Your task to perform on an android device: toggle translation in the chrome app Image 0: 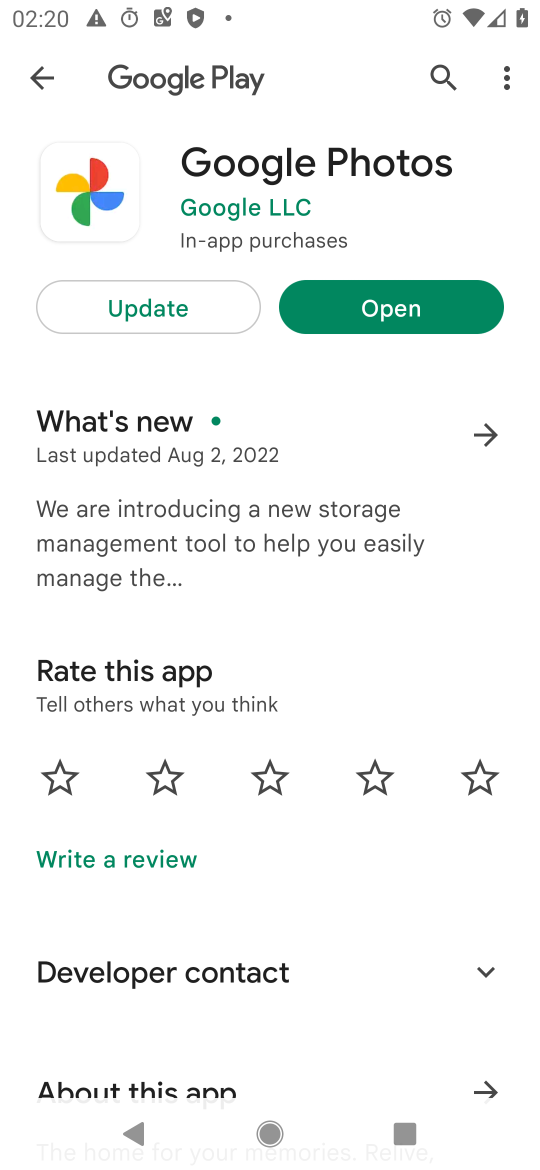
Step 0: press home button
Your task to perform on an android device: toggle translation in the chrome app Image 1: 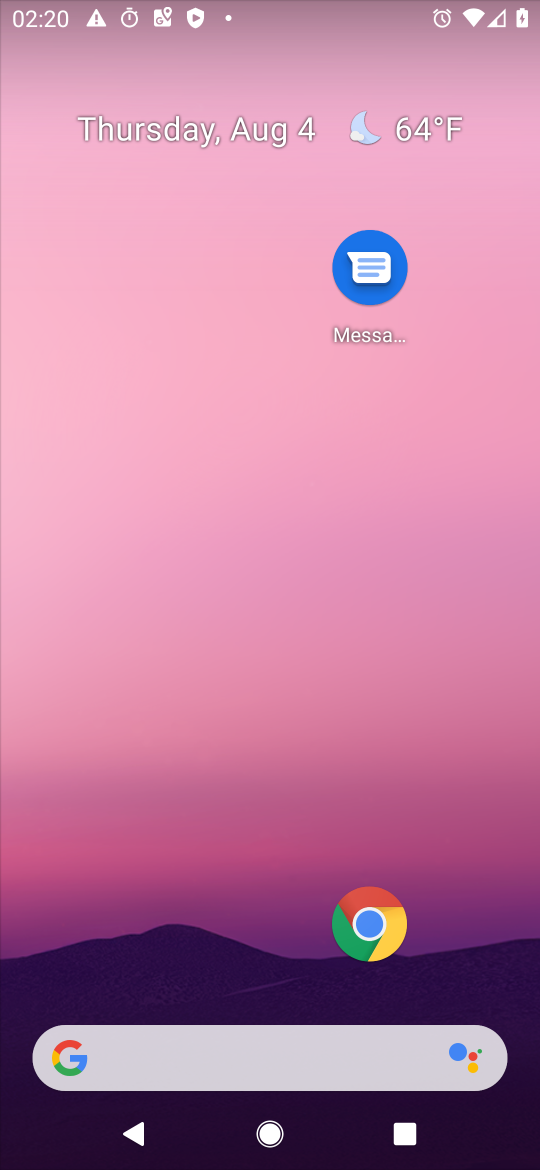
Step 1: click (371, 907)
Your task to perform on an android device: toggle translation in the chrome app Image 2: 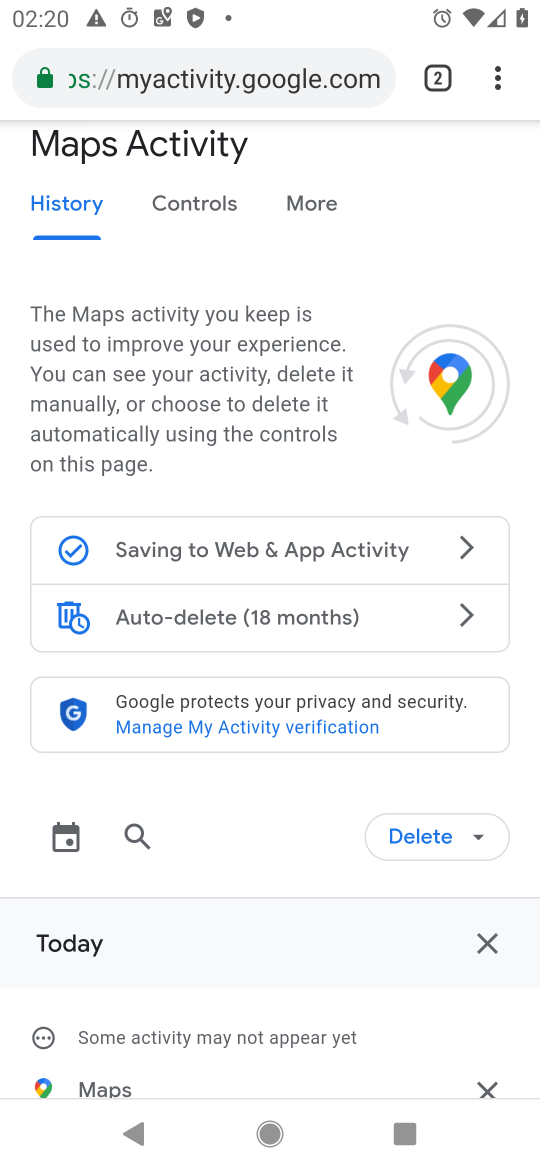
Step 2: click (502, 64)
Your task to perform on an android device: toggle translation in the chrome app Image 3: 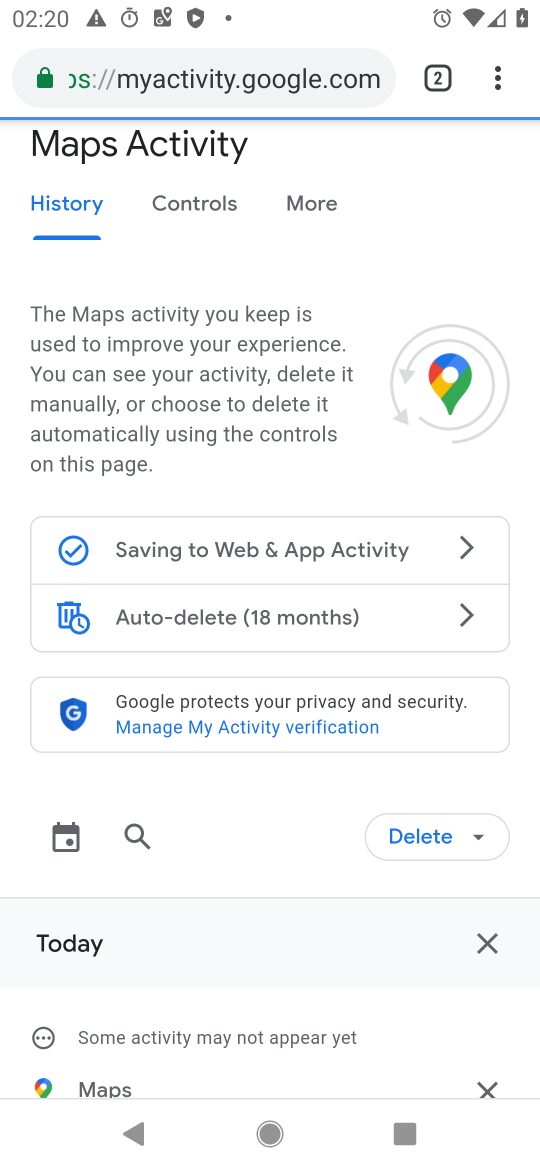
Step 3: click (508, 79)
Your task to perform on an android device: toggle translation in the chrome app Image 4: 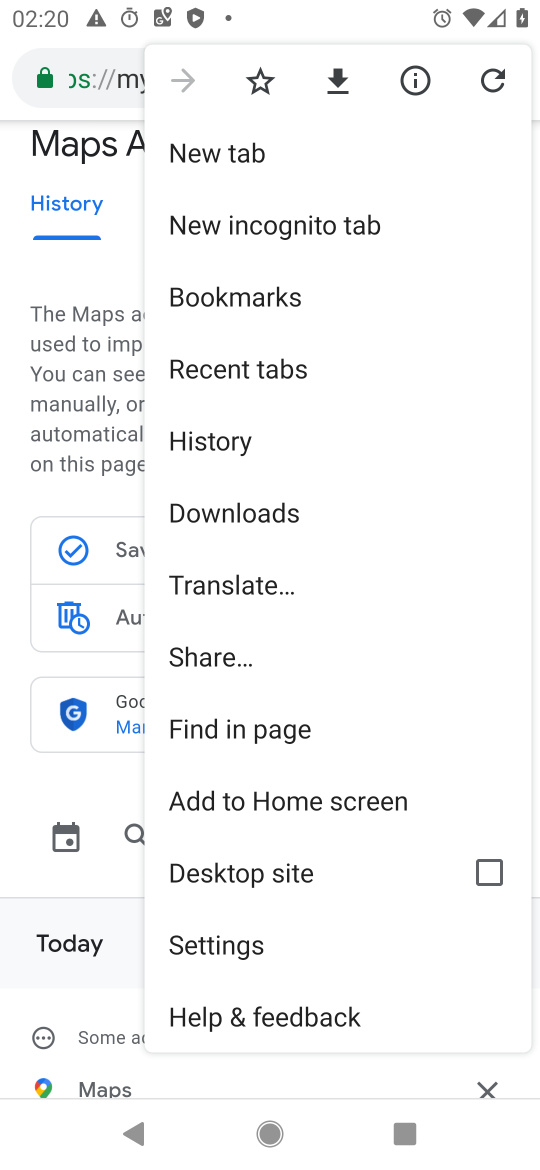
Step 4: click (221, 943)
Your task to perform on an android device: toggle translation in the chrome app Image 5: 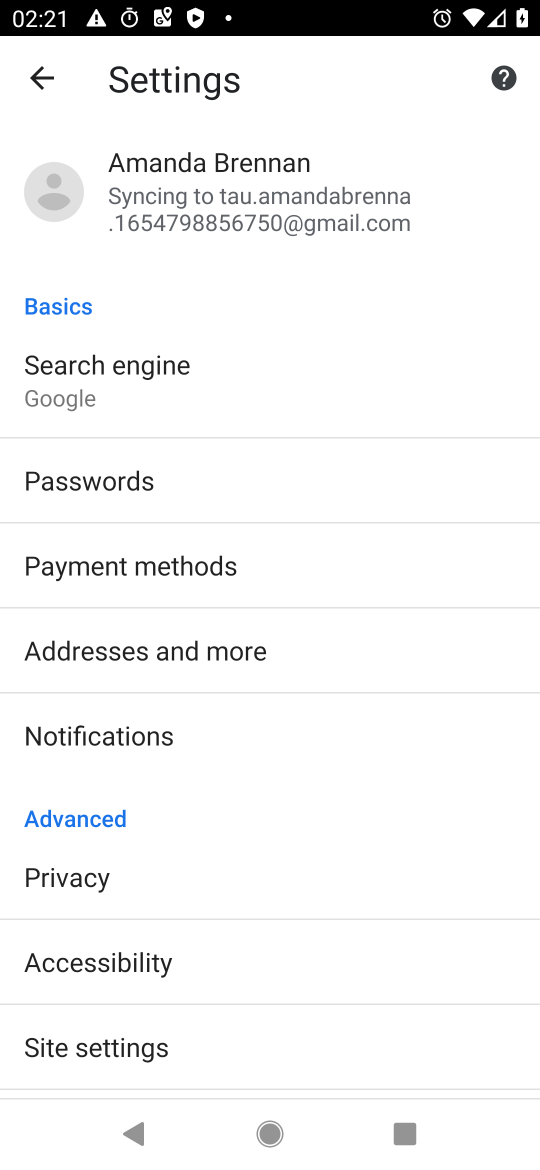
Step 5: drag from (256, 941) to (311, 457)
Your task to perform on an android device: toggle translation in the chrome app Image 6: 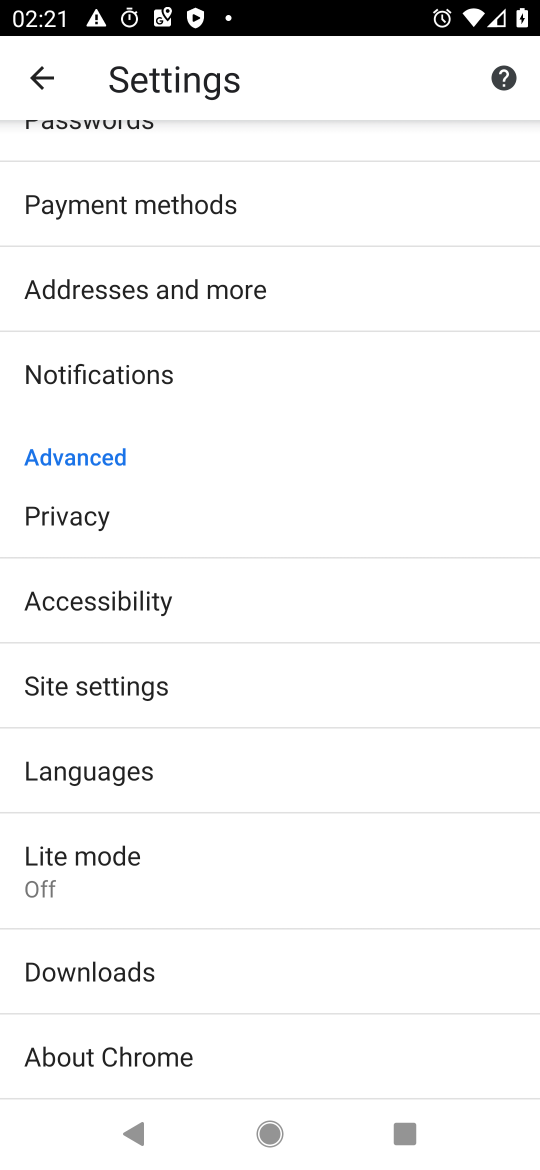
Step 6: click (137, 773)
Your task to perform on an android device: toggle translation in the chrome app Image 7: 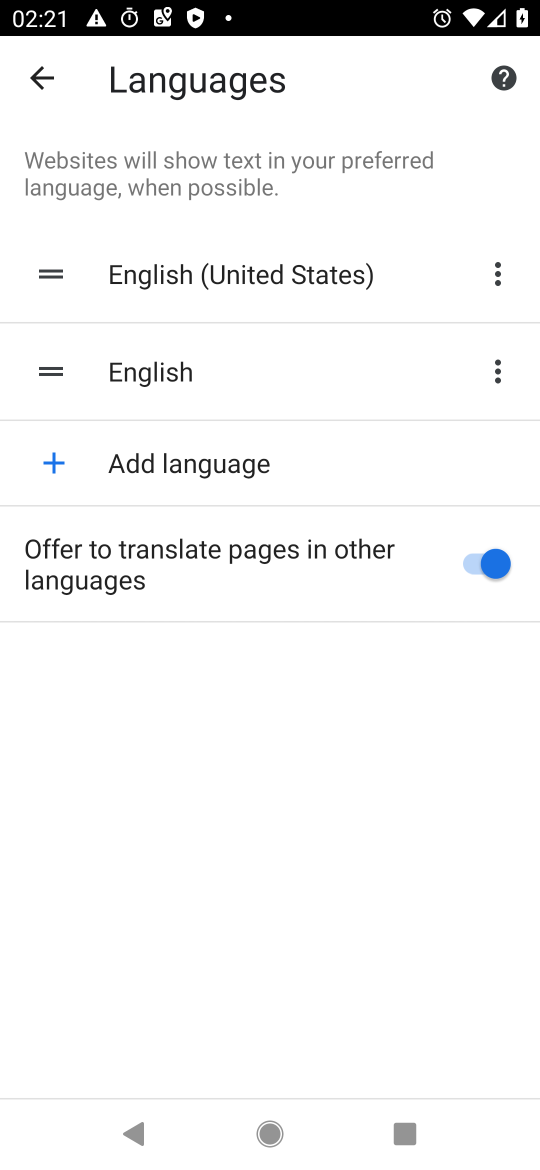
Step 7: task complete